Your task to perform on an android device: clear history in the chrome app Image 0: 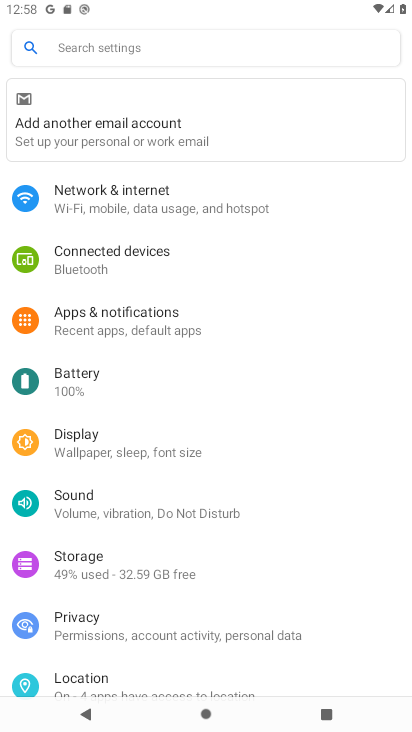
Step 0: press home button
Your task to perform on an android device: clear history in the chrome app Image 1: 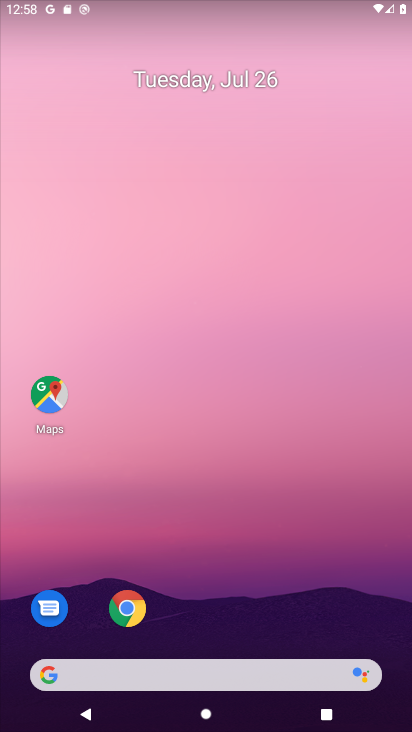
Step 1: click (132, 600)
Your task to perform on an android device: clear history in the chrome app Image 2: 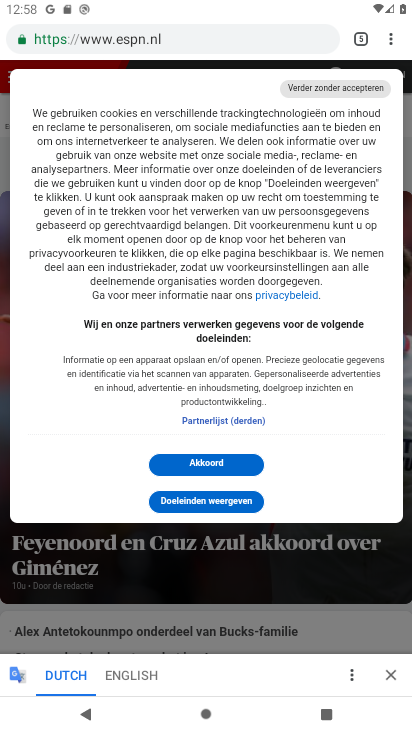
Step 2: click (386, 50)
Your task to perform on an android device: clear history in the chrome app Image 3: 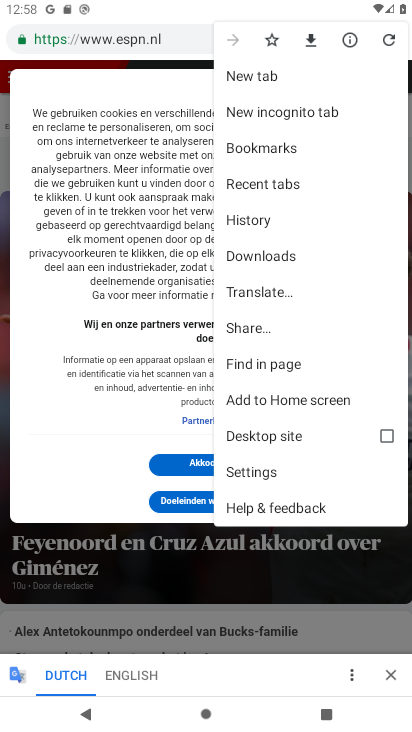
Step 3: click (245, 239)
Your task to perform on an android device: clear history in the chrome app Image 4: 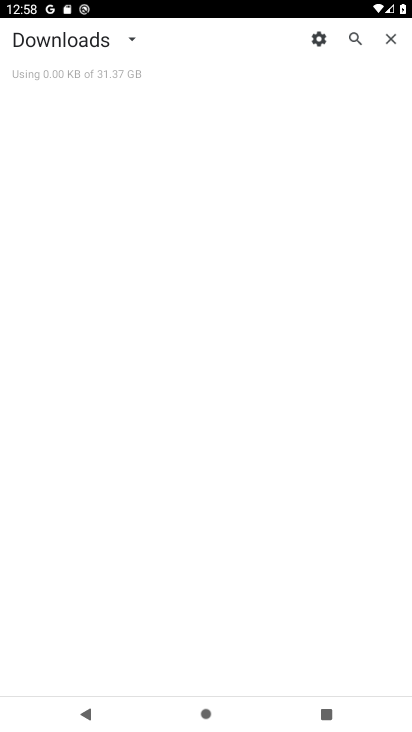
Step 4: task complete